Your task to perform on an android device: see tabs open on other devices in the chrome app Image 0: 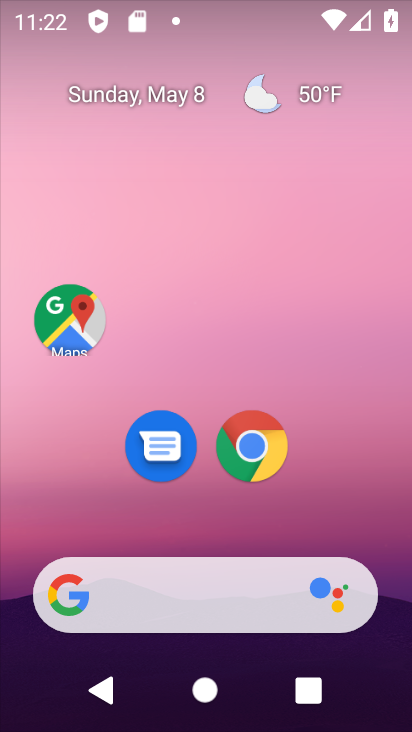
Step 0: click (242, 442)
Your task to perform on an android device: see tabs open on other devices in the chrome app Image 1: 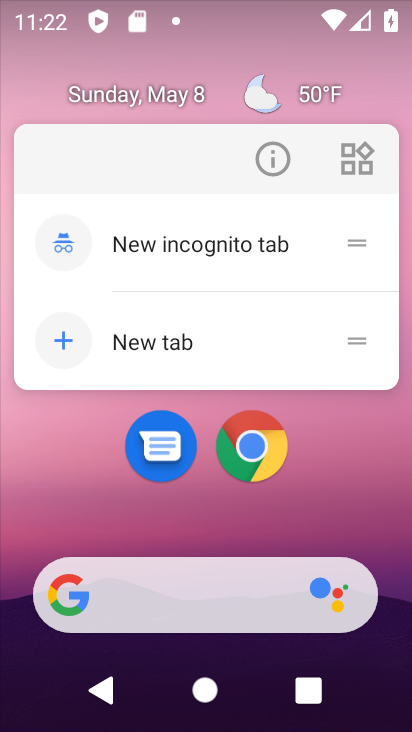
Step 1: click (242, 442)
Your task to perform on an android device: see tabs open on other devices in the chrome app Image 2: 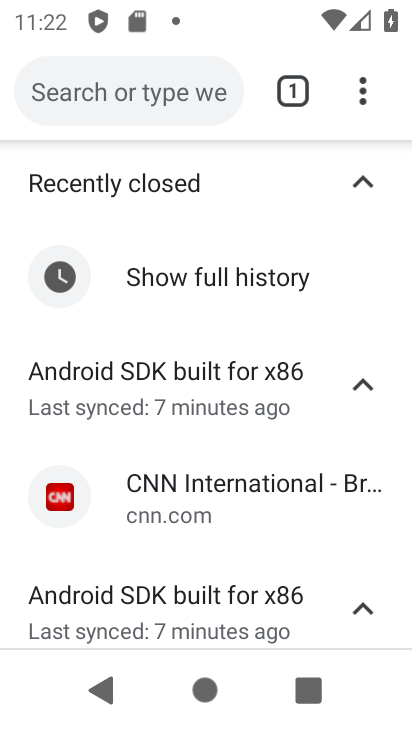
Step 2: click (365, 94)
Your task to perform on an android device: see tabs open on other devices in the chrome app Image 3: 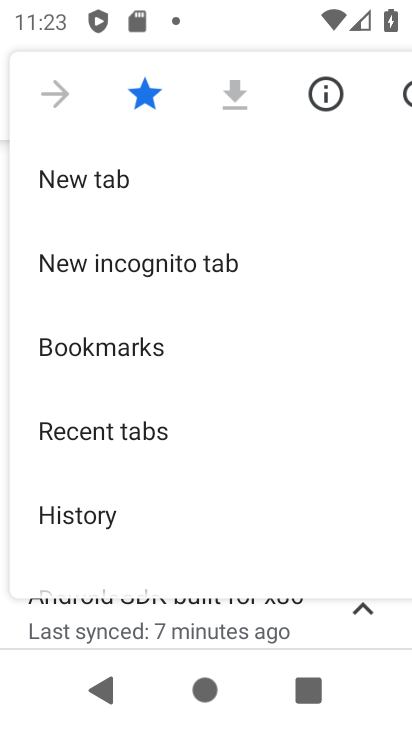
Step 3: click (111, 423)
Your task to perform on an android device: see tabs open on other devices in the chrome app Image 4: 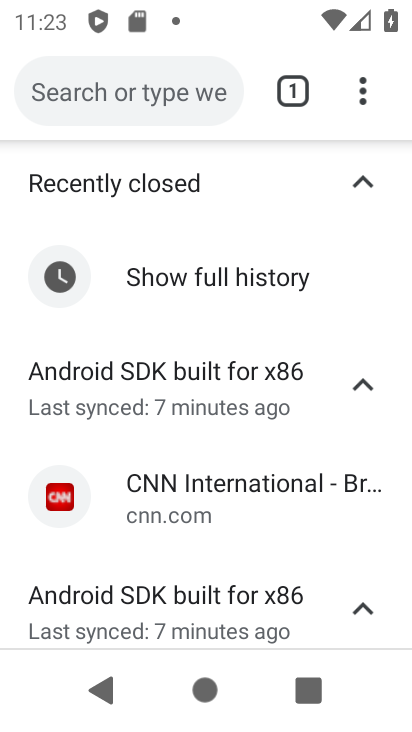
Step 4: task complete